Your task to perform on an android device: Go to battery settings Image 0: 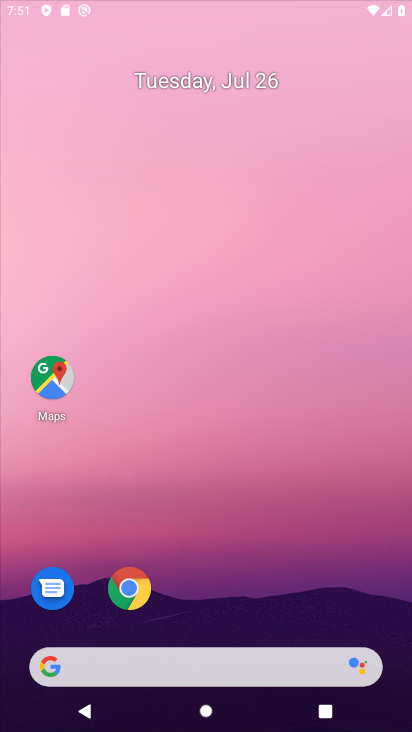
Step 0: click (215, 531)
Your task to perform on an android device: Go to battery settings Image 1: 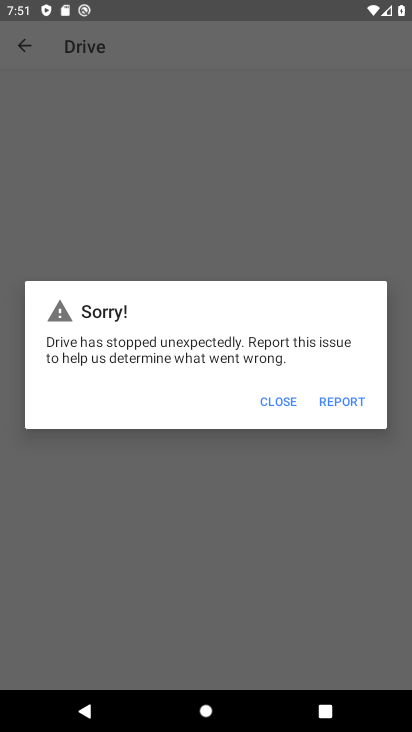
Step 1: press home button
Your task to perform on an android device: Go to battery settings Image 2: 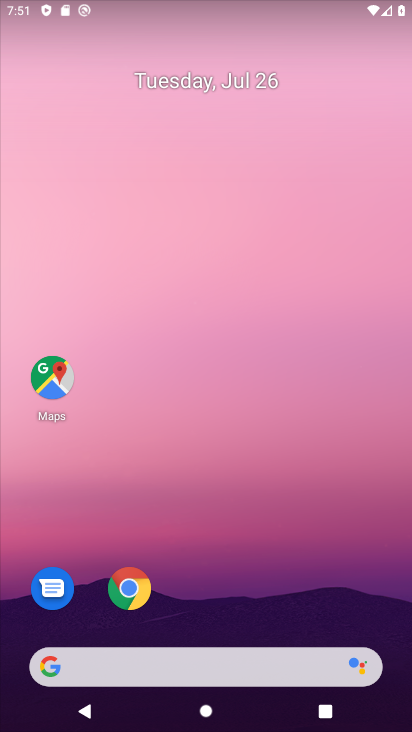
Step 2: drag from (293, 450) to (302, 20)
Your task to perform on an android device: Go to battery settings Image 3: 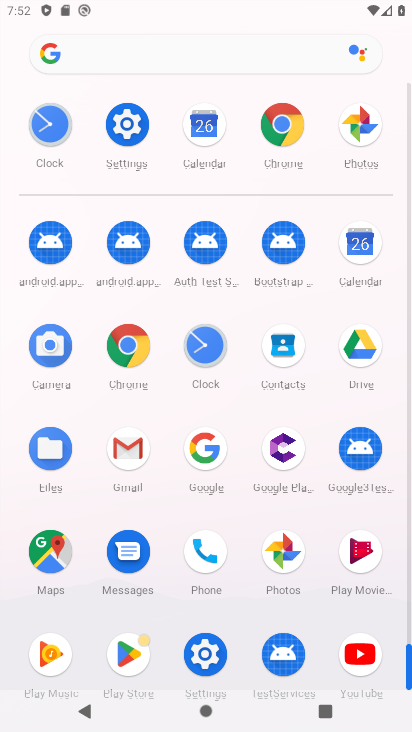
Step 3: click (119, 136)
Your task to perform on an android device: Go to battery settings Image 4: 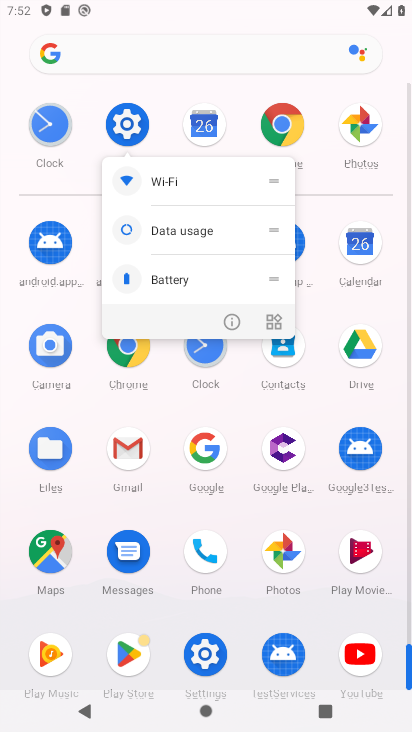
Step 4: click (122, 129)
Your task to perform on an android device: Go to battery settings Image 5: 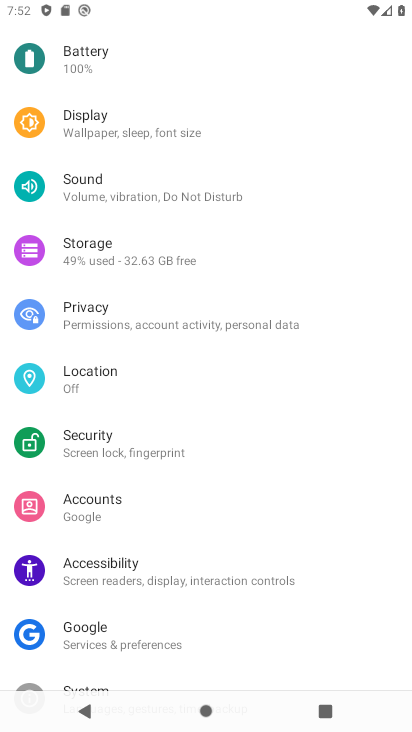
Step 5: drag from (297, 96) to (256, 458)
Your task to perform on an android device: Go to battery settings Image 6: 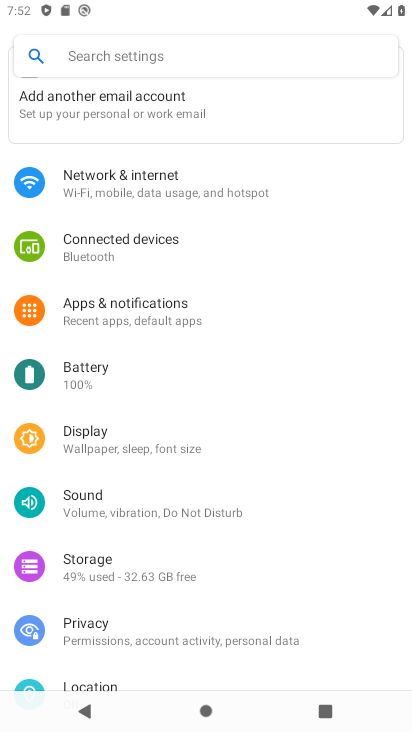
Step 6: click (100, 366)
Your task to perform on an android device: Go to battery settings Image 7: 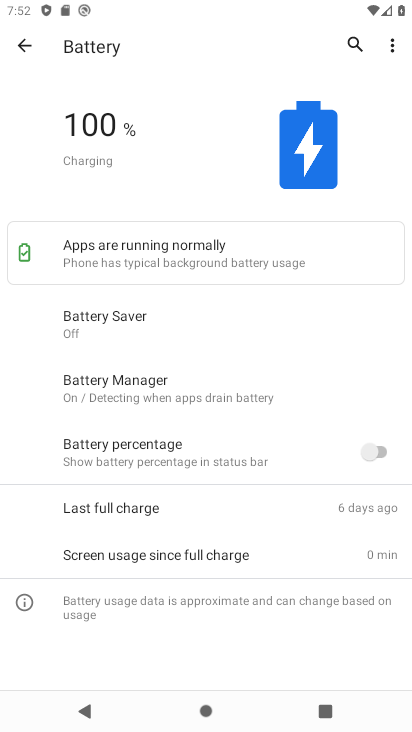
Step 7: task complete